Your task to perform on an android device: Play the latest video from the Wall Street Journal Image 0: 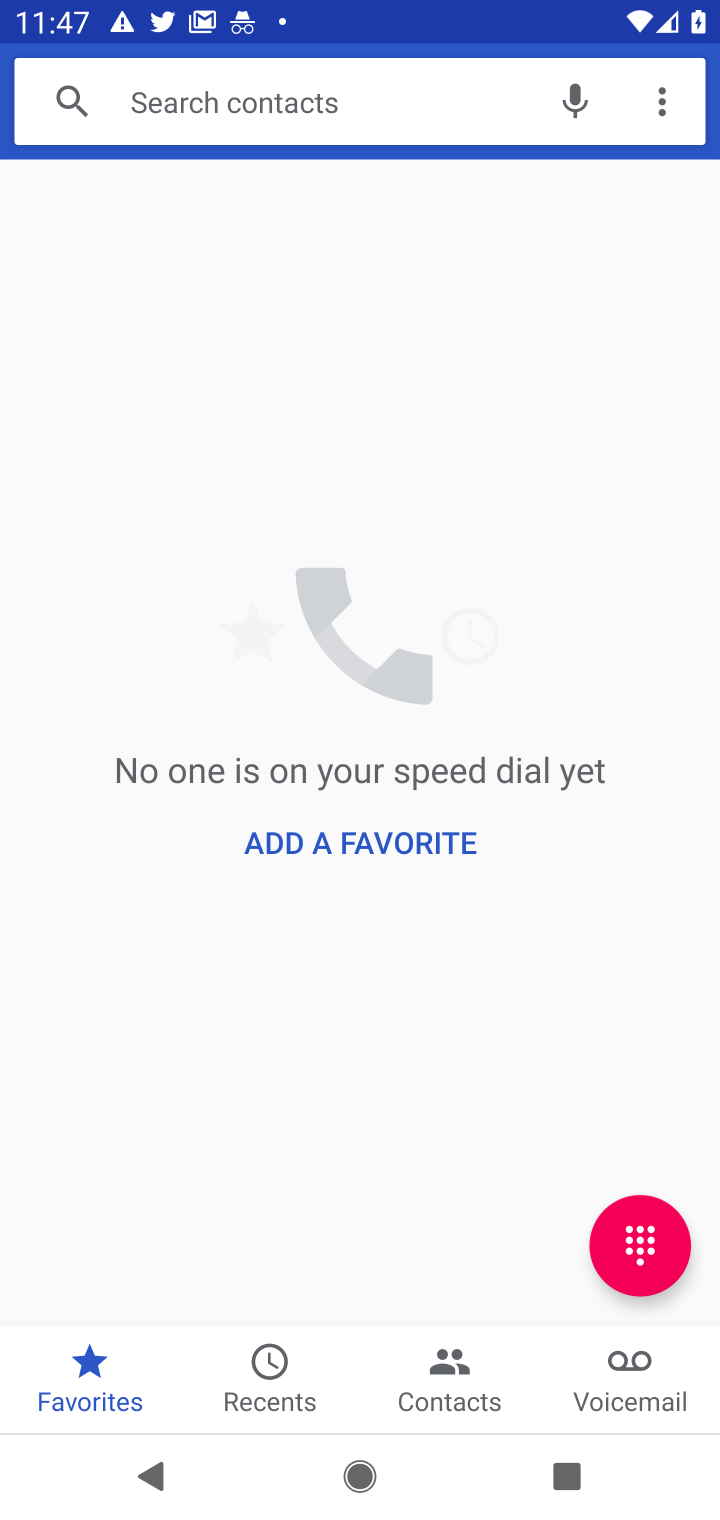
Step 0: press home button
Your task to perform on an android device: Play the latest video from the Wall Street Journal Image 1: 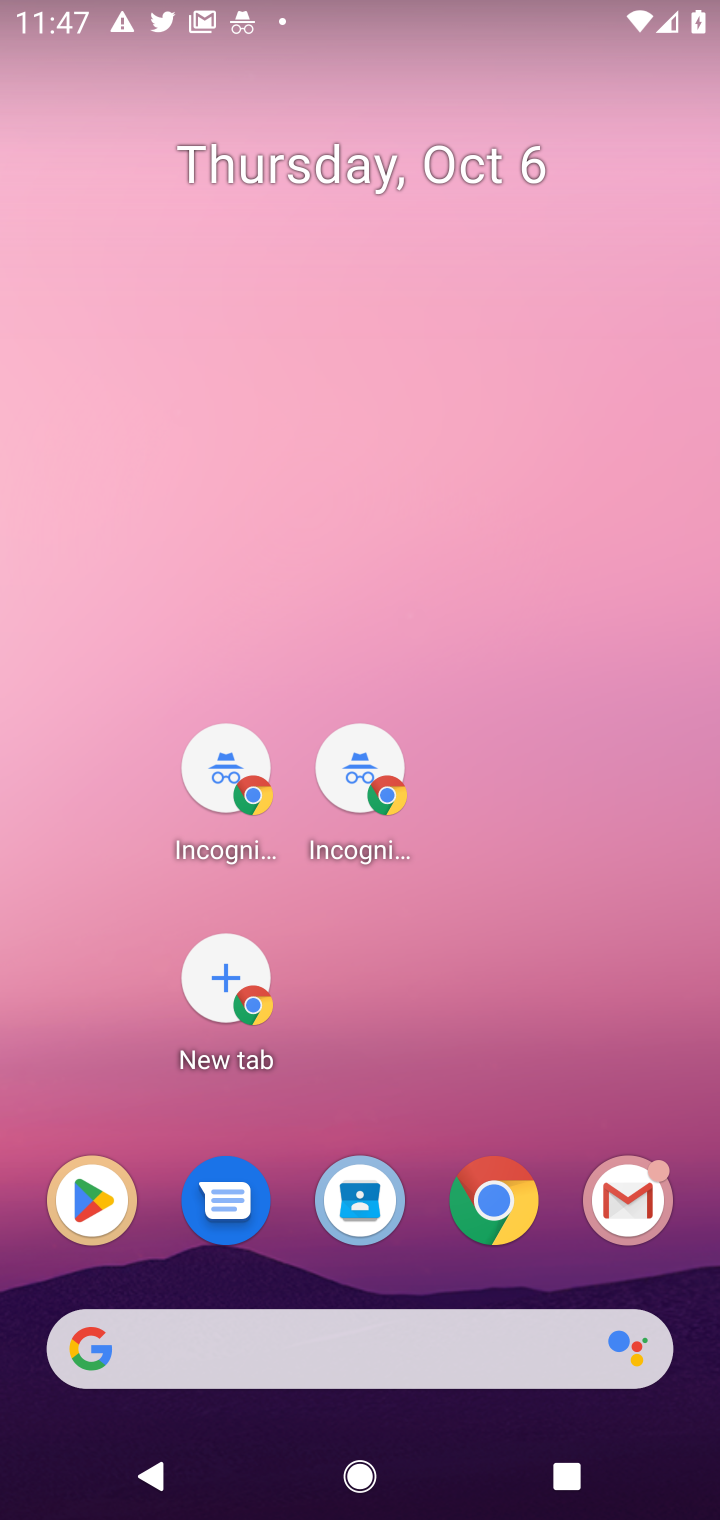
Step 1: click (501, 1215)
Your task to perform on an android device: Play the latest video from the Wall Street Journal Image 2: 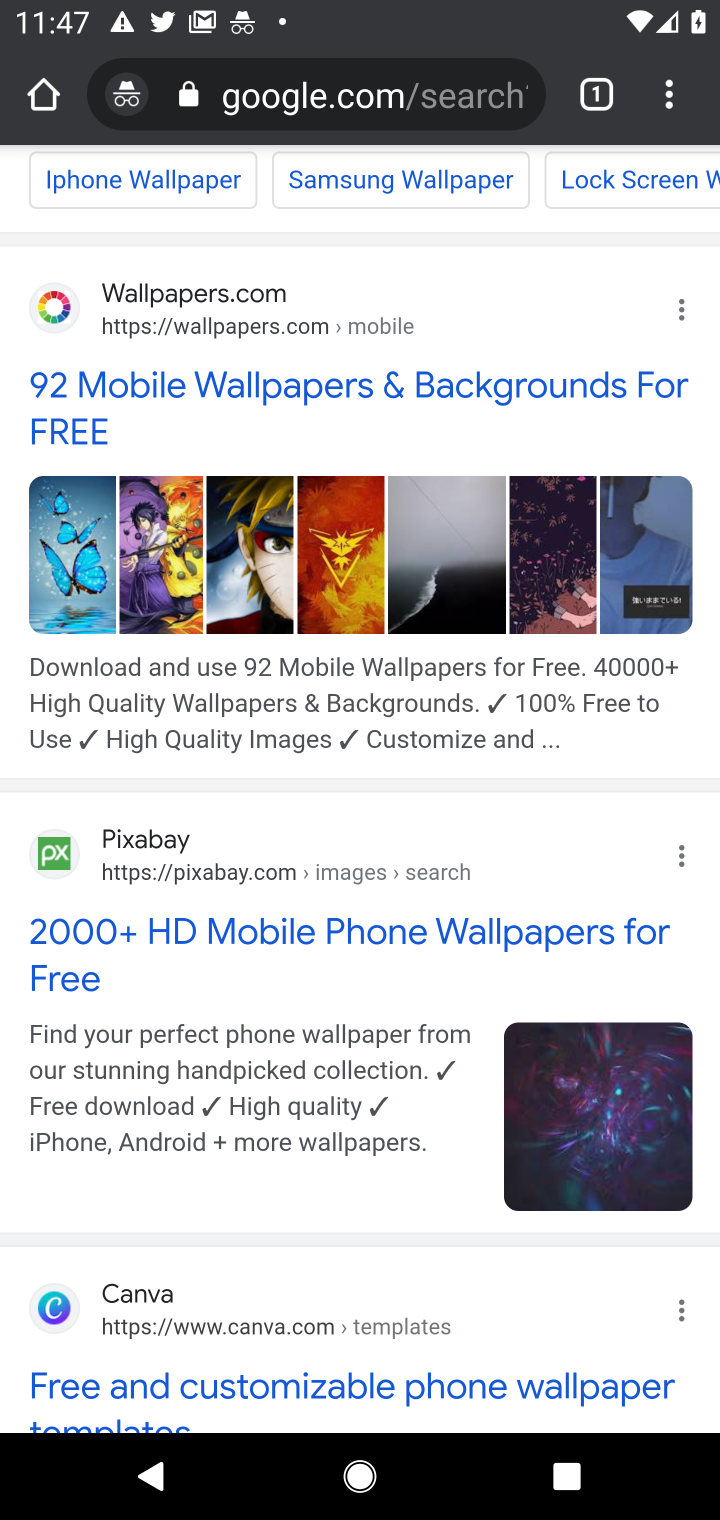
Step 2: click (321, 109)
Your task to perform on an android device: Play the latest video from the Wall Street Journal Image 3: 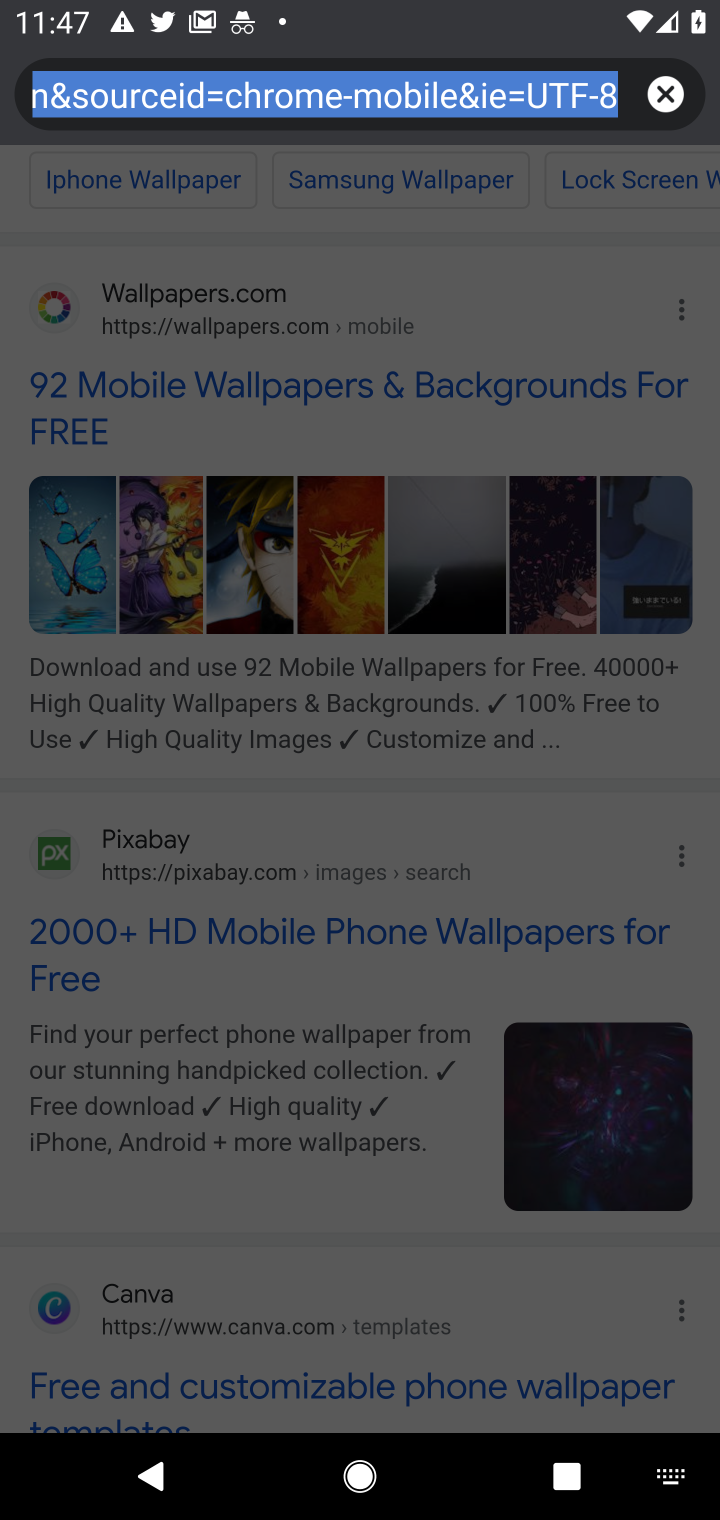
Step 3: click (662, 97)
Your task to perform on an android device: Play the latest video from the Wall Street Journal Image 4: 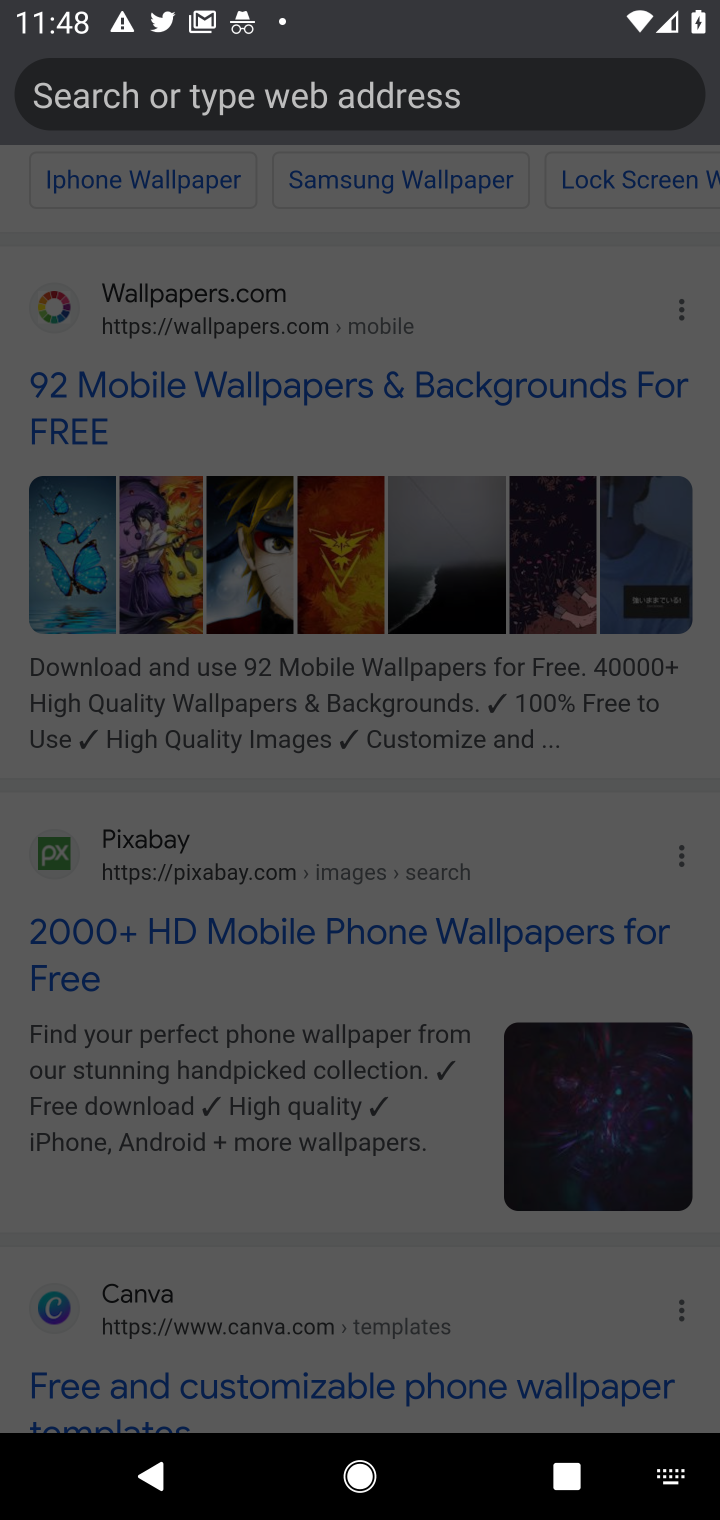
Step 4: type "latest video from the wallstreet journal"
Your task to perform on an android device: Play the latest video from the Wall Street Journal Image 5: 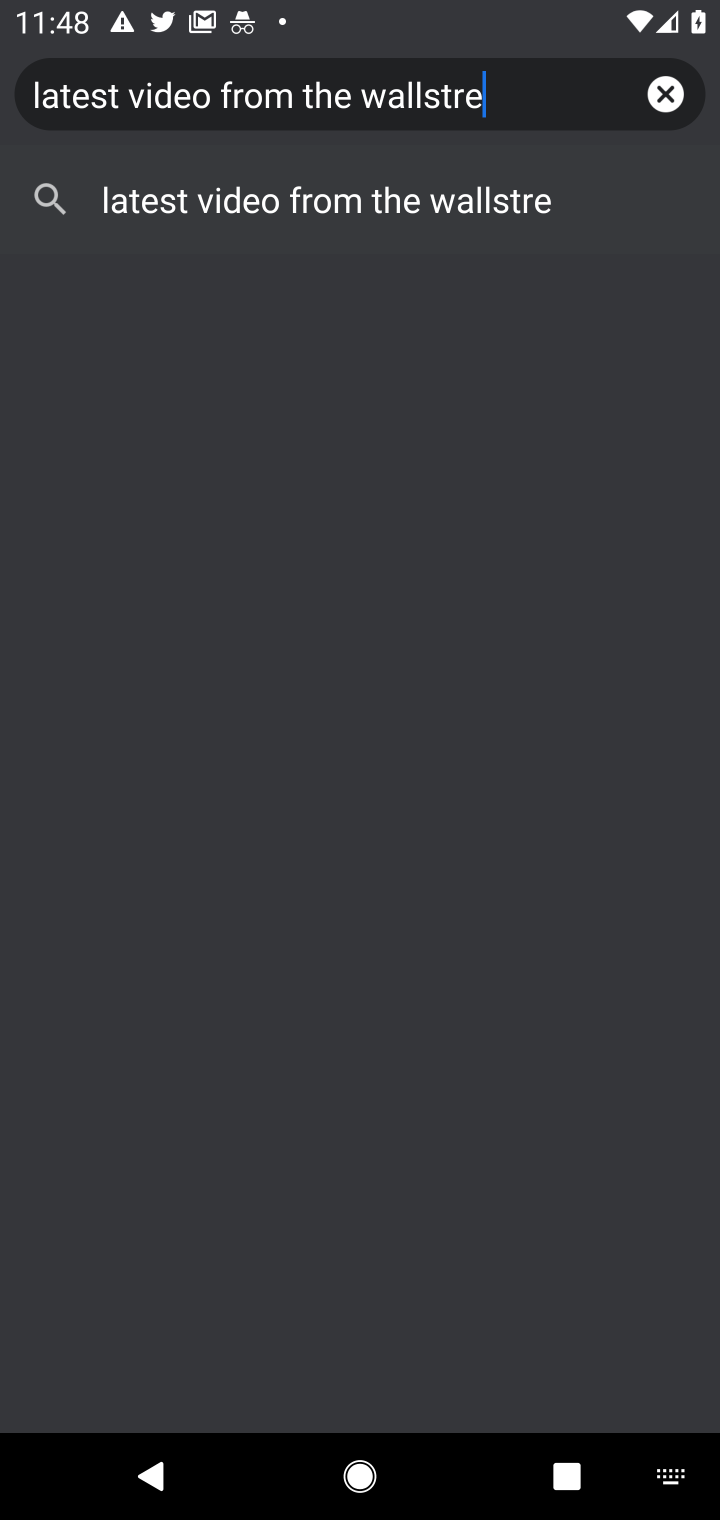
Step 5: click (496, 214)
Your task to perform on an android device: Play the latest video from the Wall Street Journal Image 6: 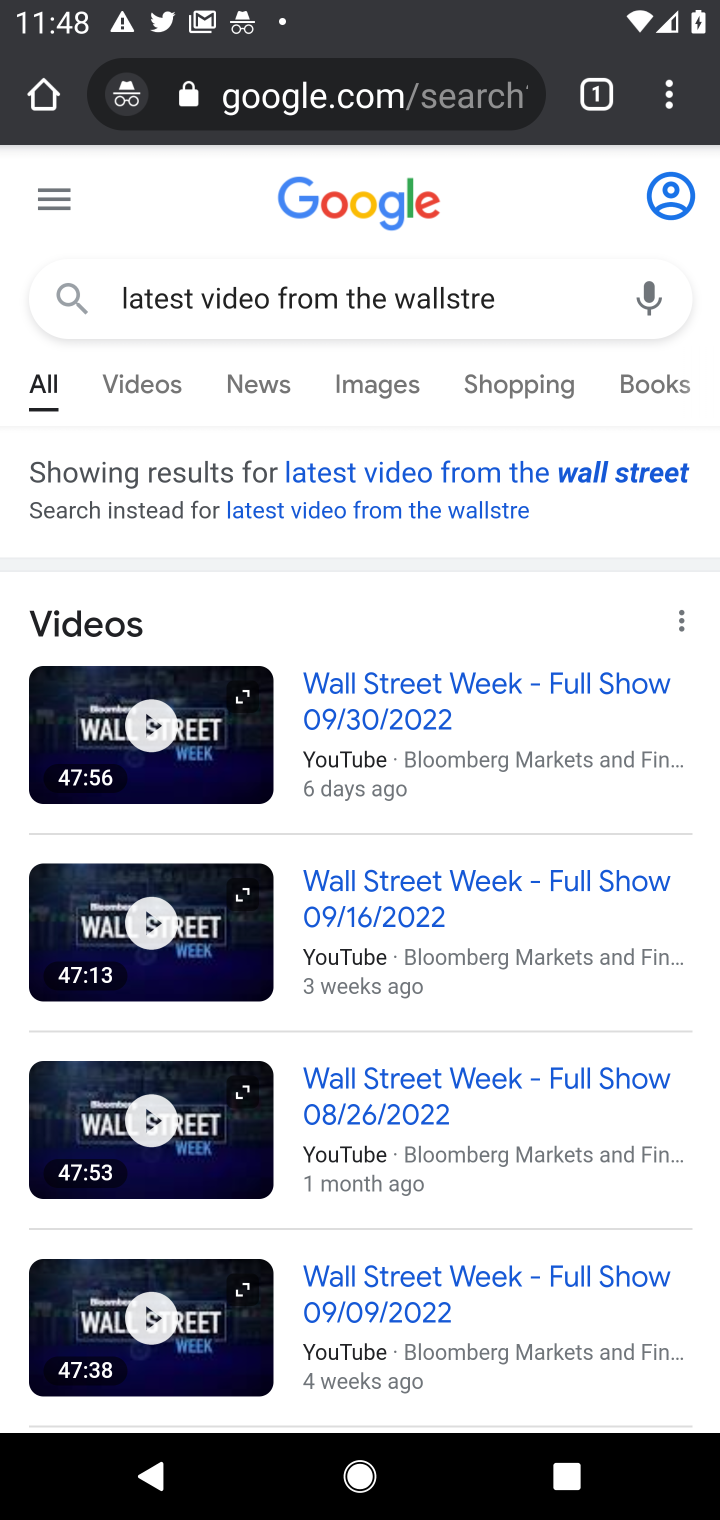
Step 6: drag from (236, 1015) to (232, 531)
Your task to perform on an android device: Play the latest video from the Wall Street Journal Image 7: 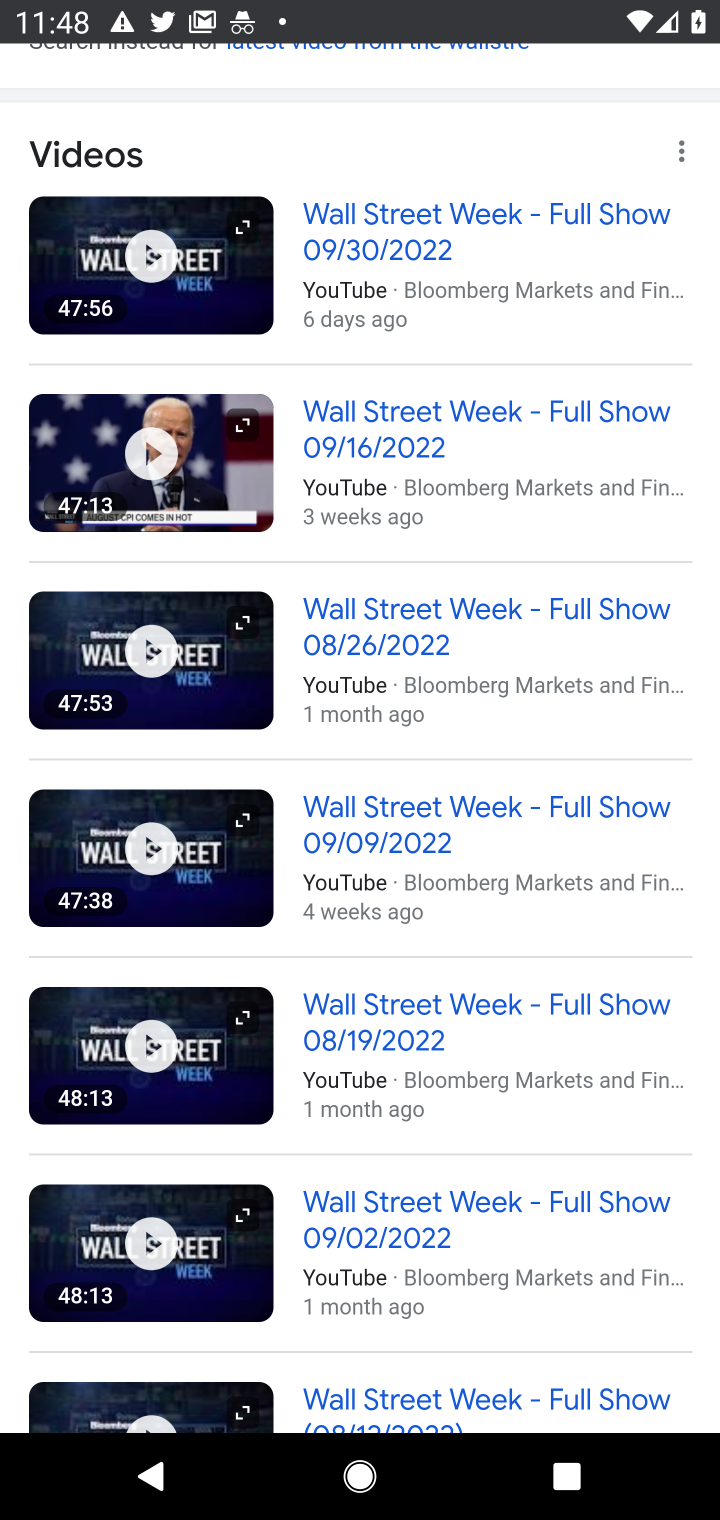
Step 7: drag from (403, 977) to (467, 348)
Your task to perform on an android device: Play the latest video from the Wall Street Journal Image 8: 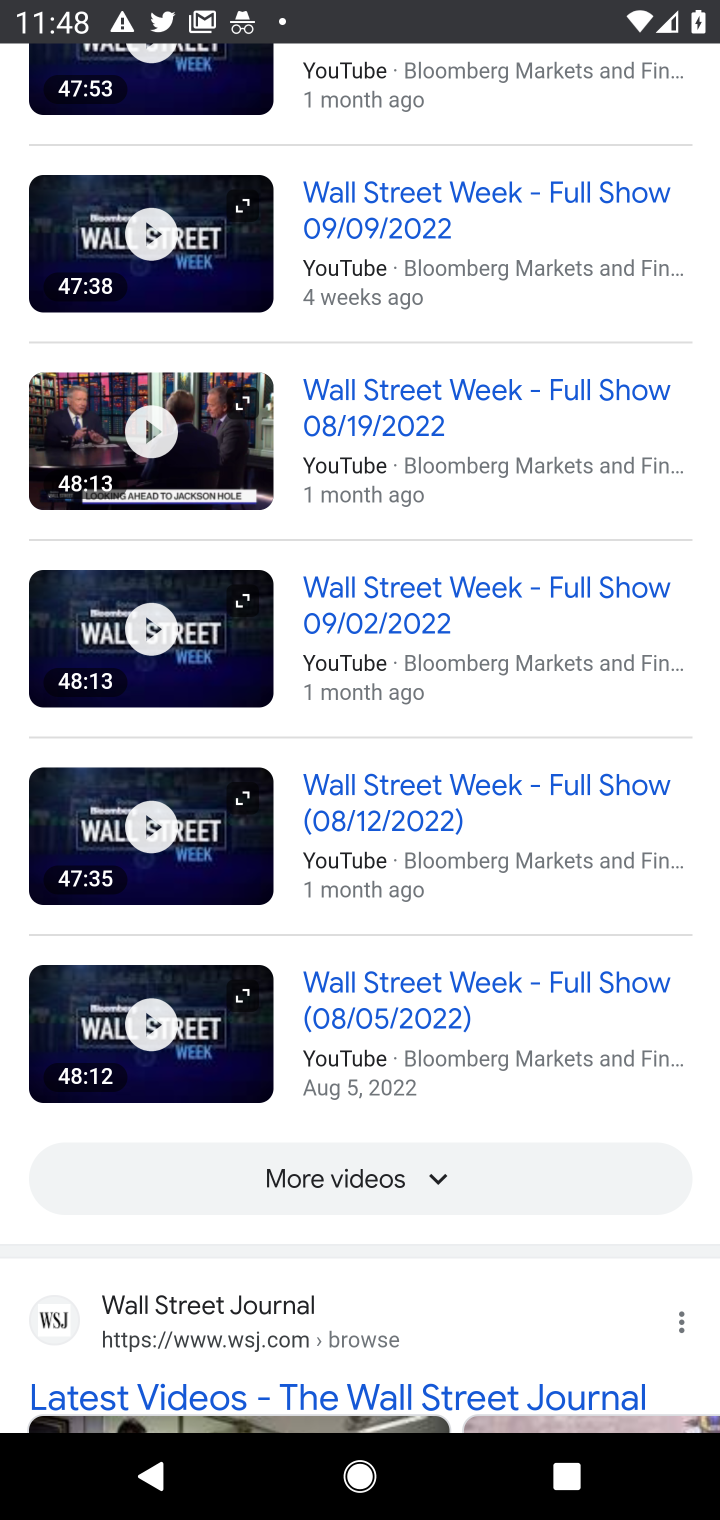
Step 8: drag from (551, 878) to (506, 372)
Your task to perform on an android device: Play the latest video from the Wall Street Journal Image 9: 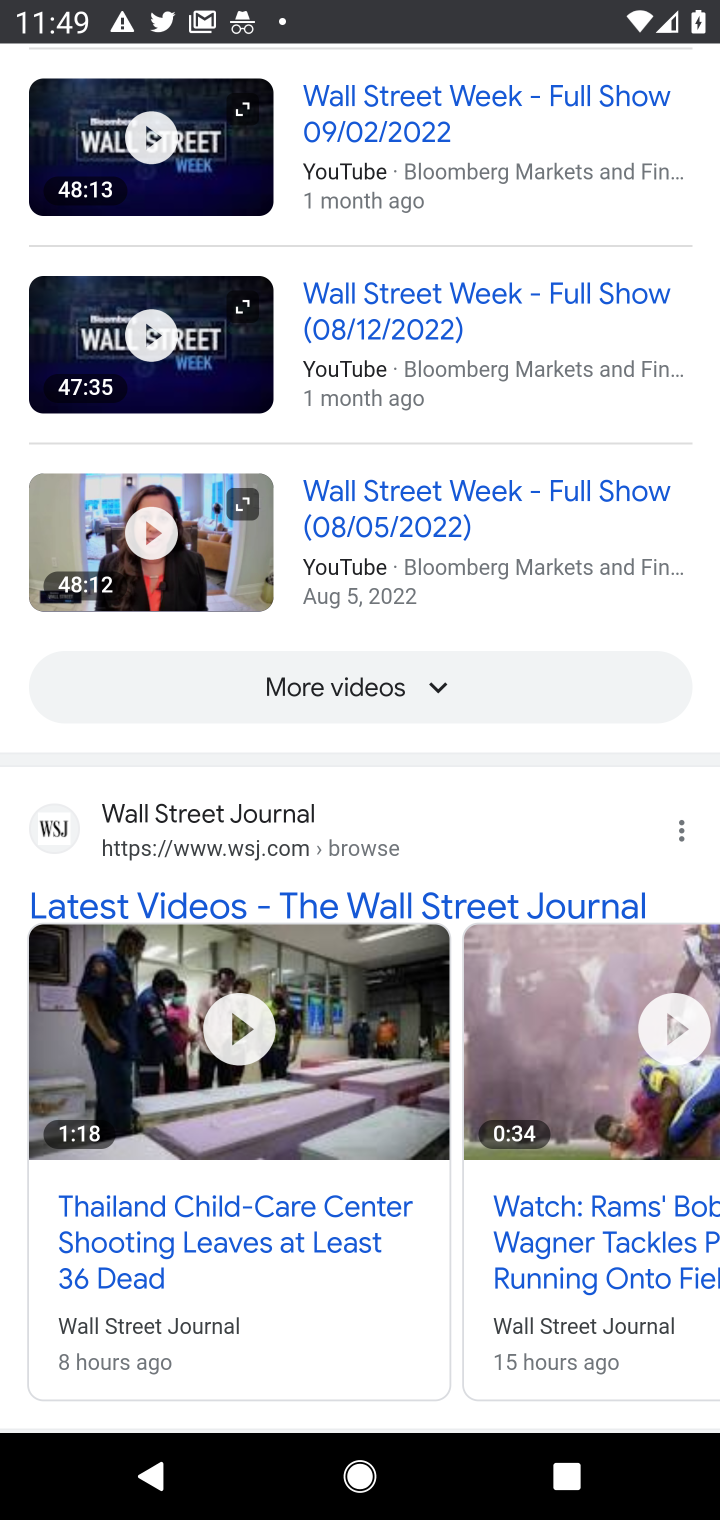
Step 9: drag from (352, 1096) to (368, 586)
Your task to perform on an android device: Play the latest video from the Wall Street Journal Image 10: 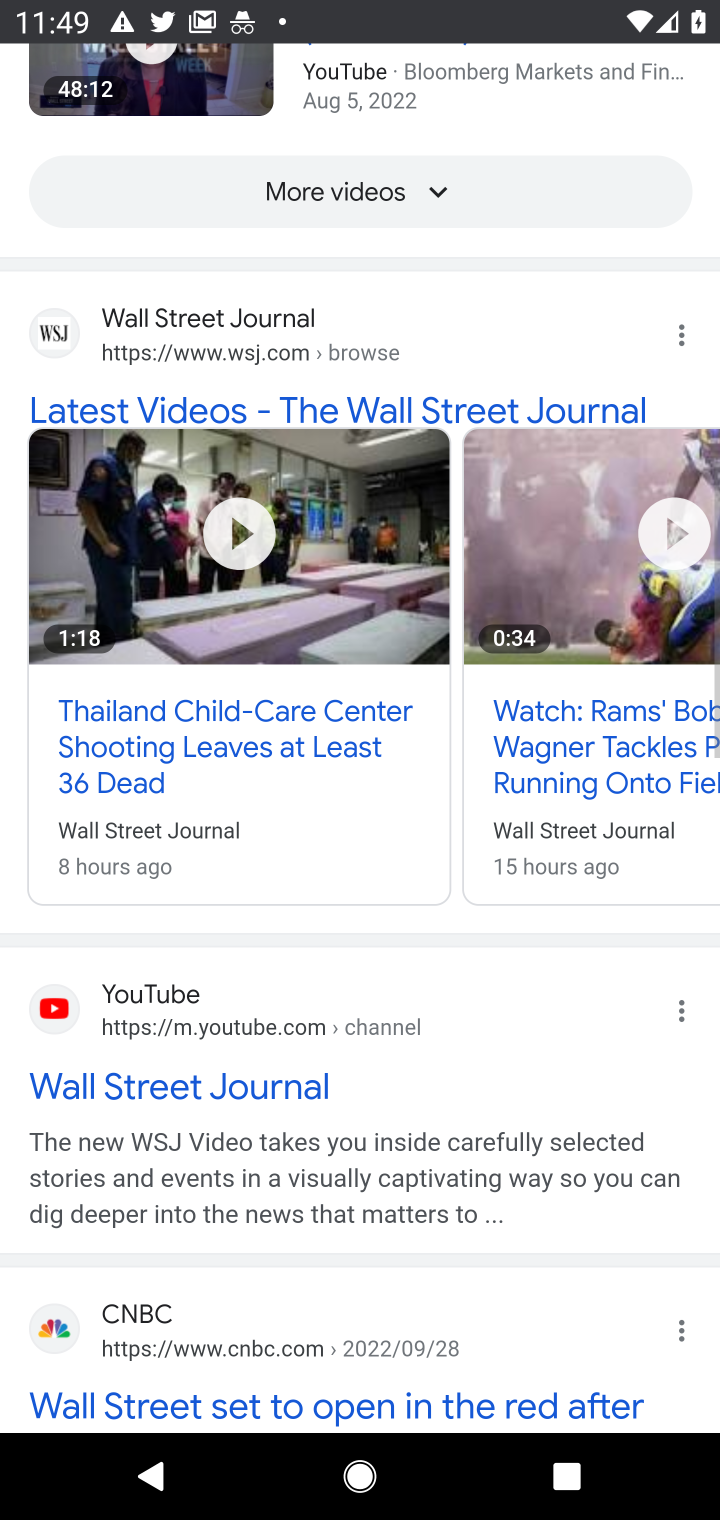
Step 10: click (303, 1019)
Your task to perform on an android device: Play the latest video from the Wall Street Journal Image 11: 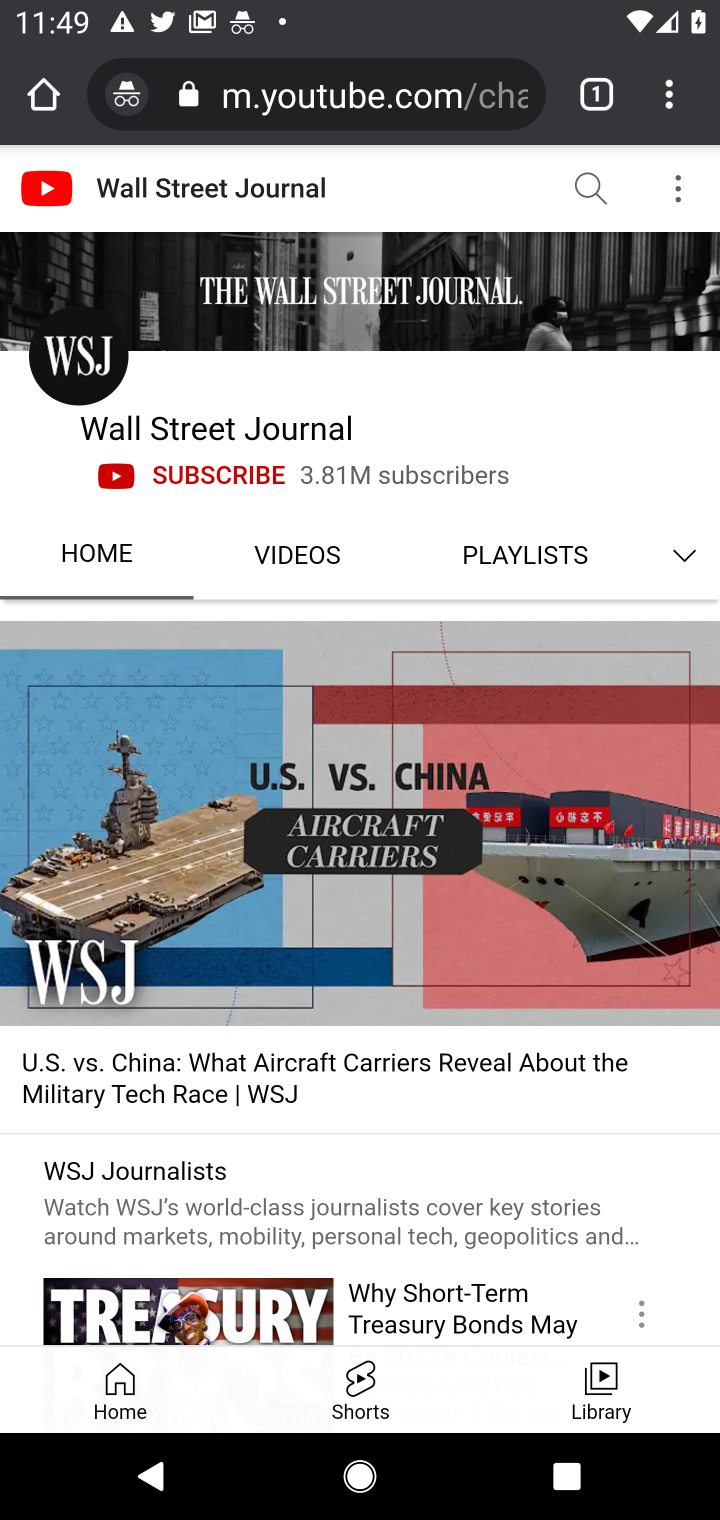
Step 11: task complete